Your task to perform on an android device: turn notification dots on Image 0: 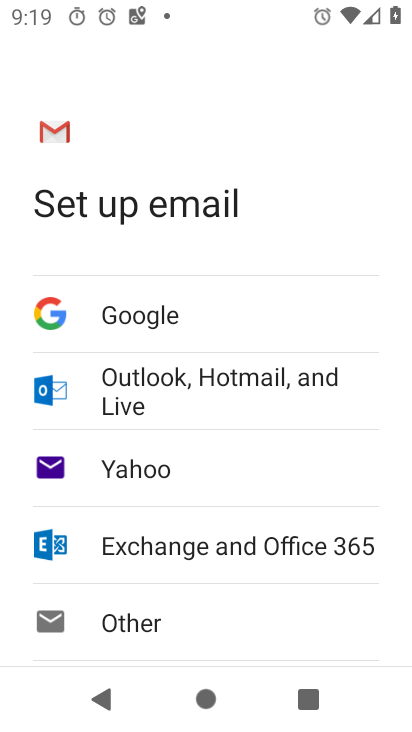
Step 0: press back button
Your task to perform on an android device: turn notification dots on Image 1: 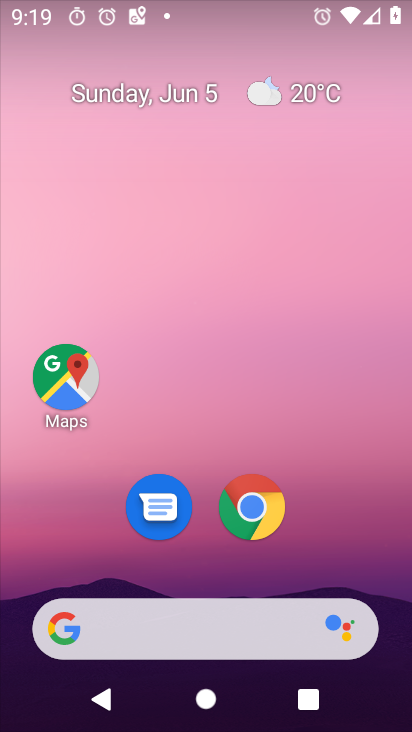
Step 1: drag from (350, 513) to (276, 21)
Your task to perform on an android device: turn notification dots on Image 2: 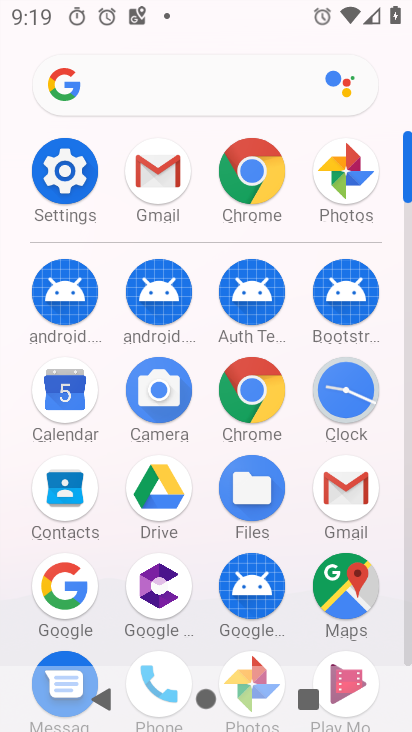
Step 2: click (66, 166)
Your task to perform on an android device: turn notification dots on Image 3: 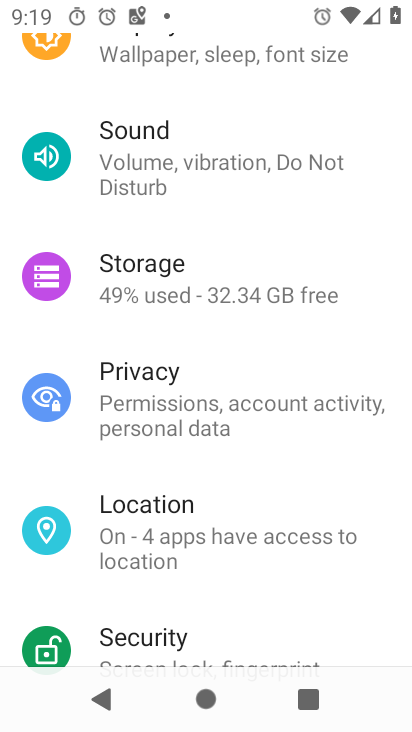
Step 3: drag from (222, 166) to (229, 568)
Your task to perform on an android device: turn notification dots on Image 4: 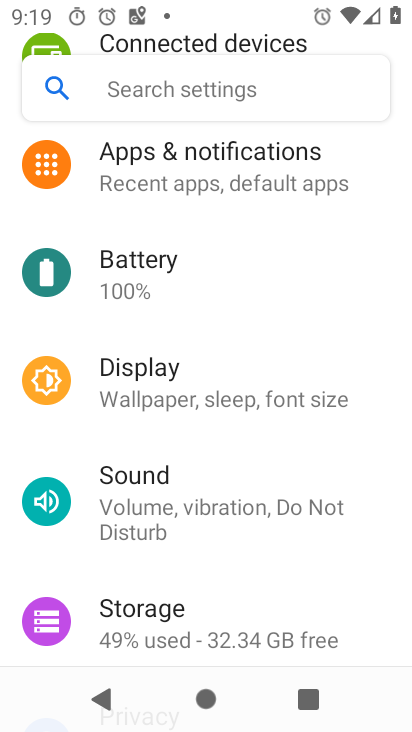
Step 4: click (234, 160)
Your task to perform on an android device: turn notification dots on Image 5: 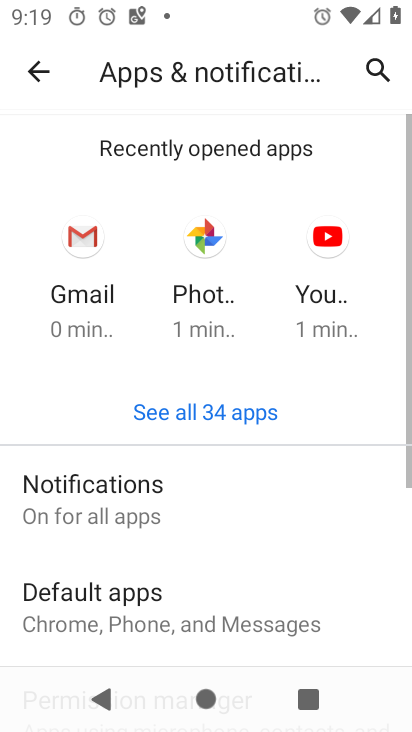
Step 5: click (181, 487)
Your task to perform on an android device: turn notification dots on Image 6: 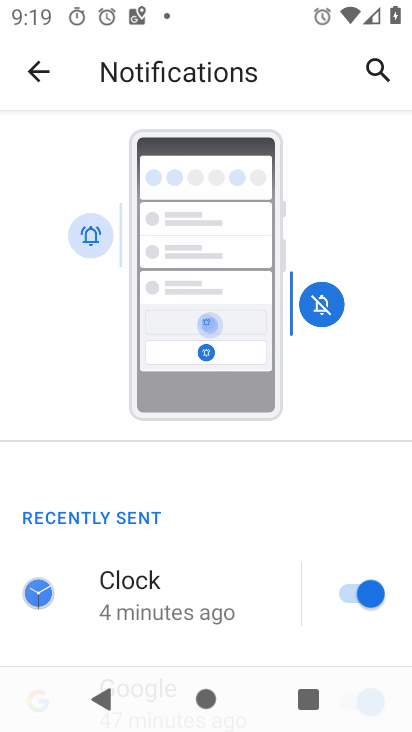
Step 6: drag from (227, 570) to (227, 161)
Your task to perform on an android device: turn notification dots on Image 7: 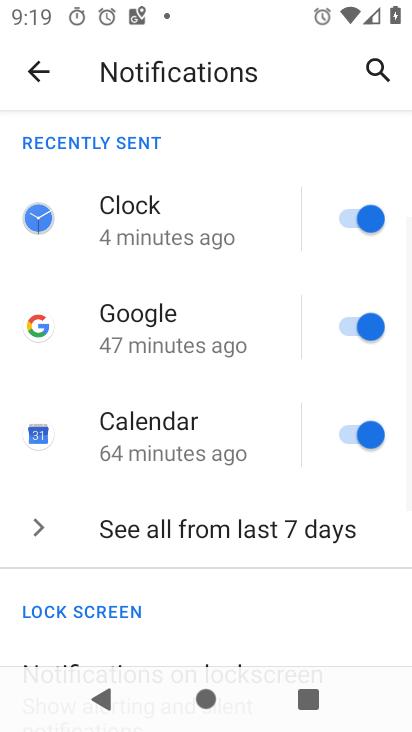
Step 7: drag from (214, 563) to (219, 122)
Your task to perform on an android device: turn notification dots on Image 8: 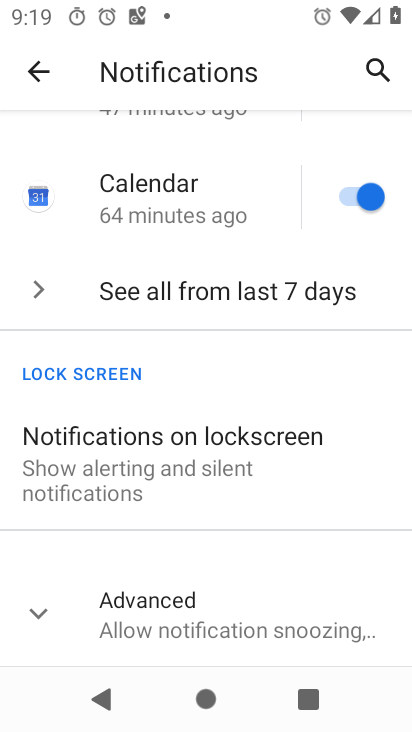
Step 8: click (83, 614)
Your task to perform on an android device: turn notification dots on Image 9: 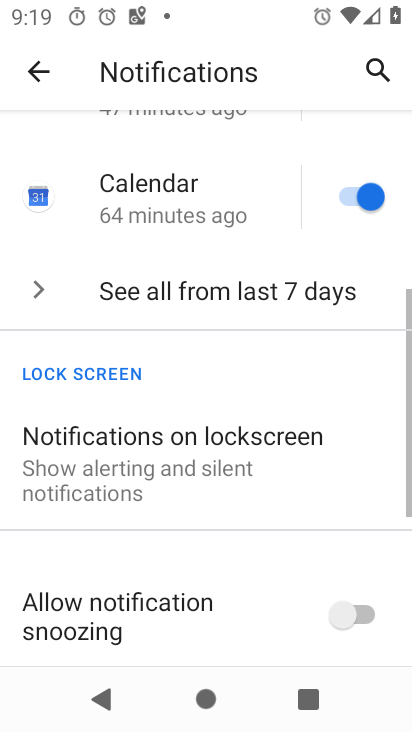
Step 9: task complete